Your task to perform on an android device: turn off airplane mode Image 0: 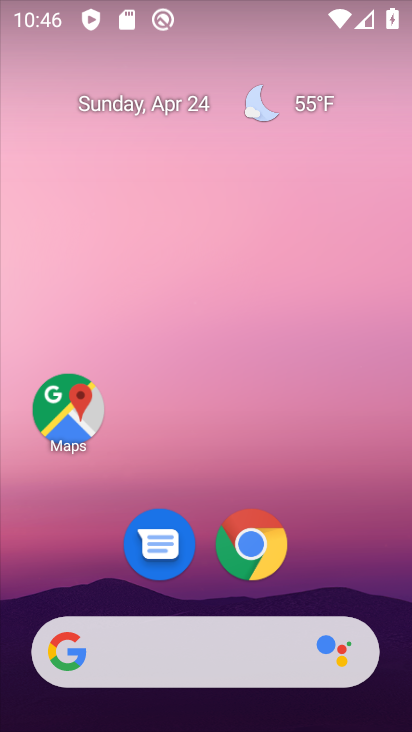
Step 0: press home button
Your task to perform on an android device: turn off airplane mode Image 1: 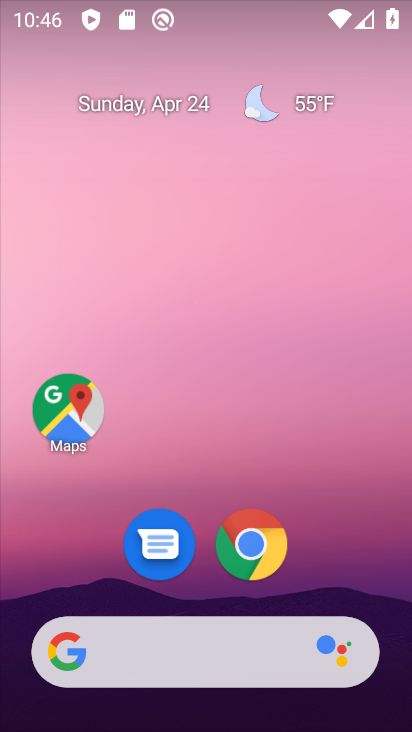
Step 1: drag from (316, 568) to (280, 96)
Your task to perform on an android device: turn off airplane mode Image 2: 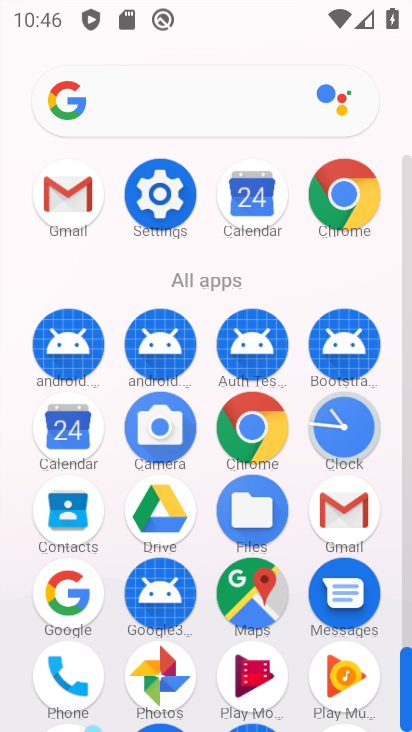
Step 2: click (164, 187)
Your task to perform on an android device: turn off airplane mode Image 3: 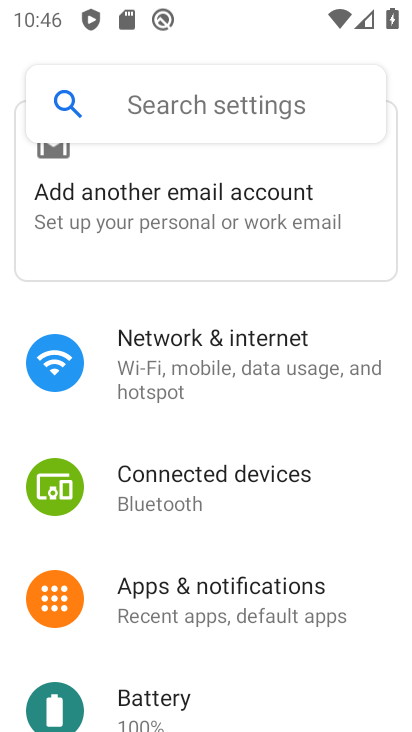
Step 3: click (202, 378)
Your task to perform on an android device: turn off airplane mode Image 4: 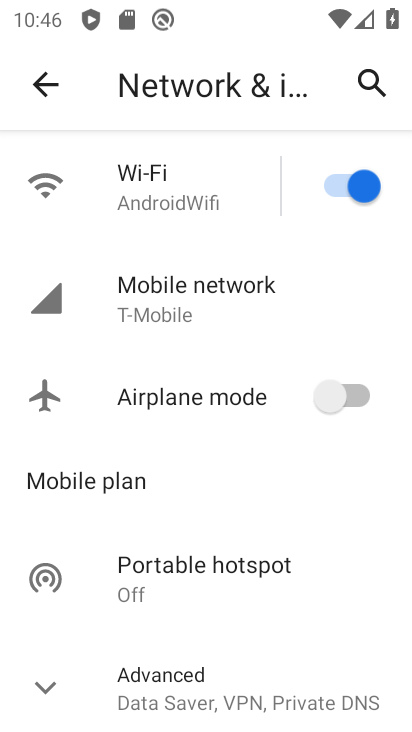
Step 4: task complete